Your task to perform on an android device: toggle priority inbox in the gmail app Image 0: 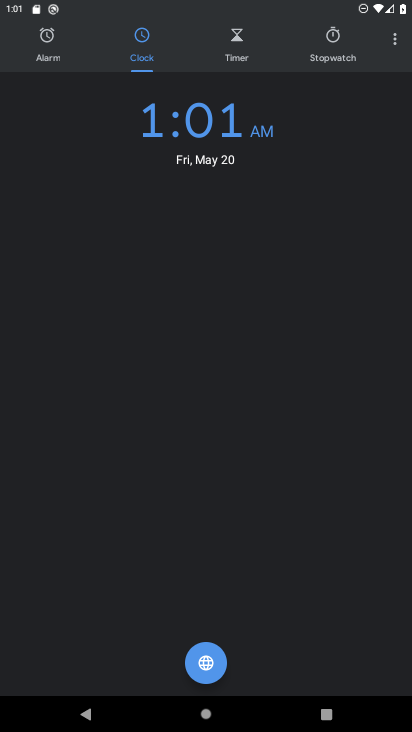
Step 0: press home button
Your task to perform on an android device: toggle priority inbox in the gmail app Image 1: 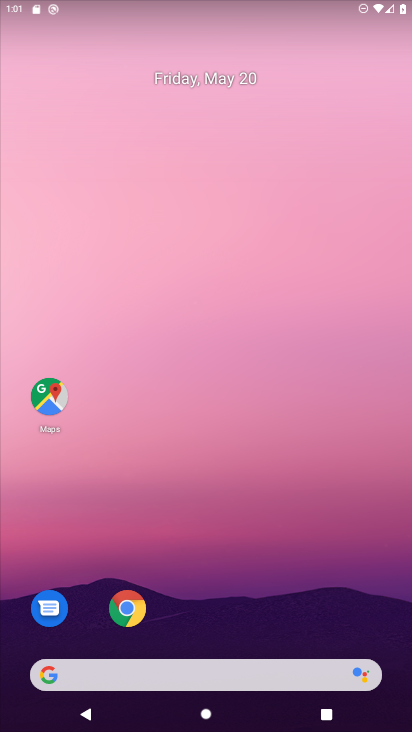
Step 1: drag from (235, 589) to (283, 18)
Your task to perform on an android device: toggle priority inbox in the gmail app Image 2: 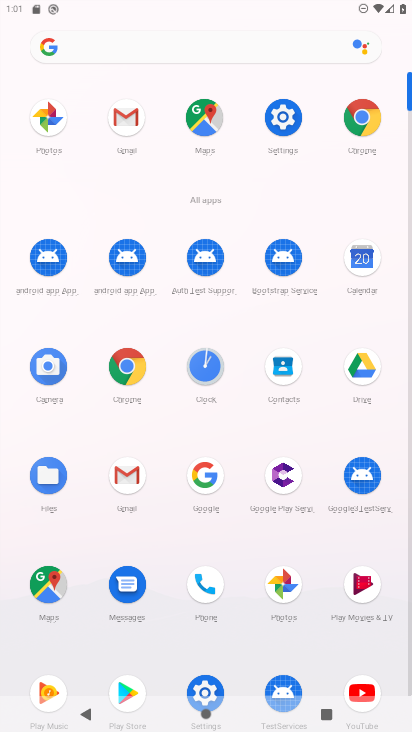
Step 2: click (147, 118)
Your task to perform on an android device: toggle priority inbox in the gmail app Image 3: 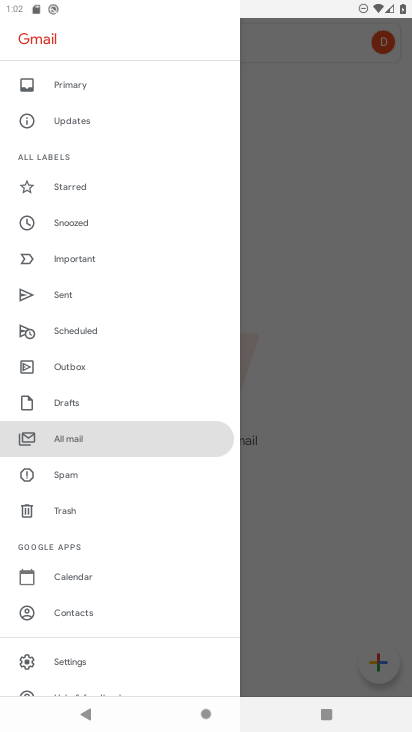
Step 3: click (89, 654)
Your task to perform on an android device: toggle priority inbox in the gmail app Image 4: 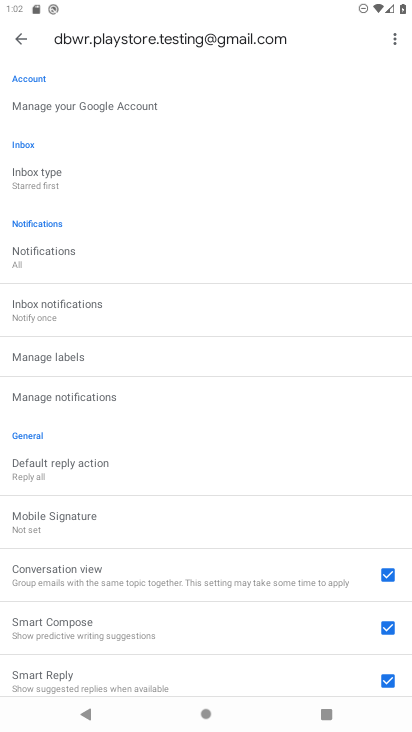
Step 4: click (32, 183)
Your task to perform on an android device: toggle priority inbox in the gmail app Image 5: 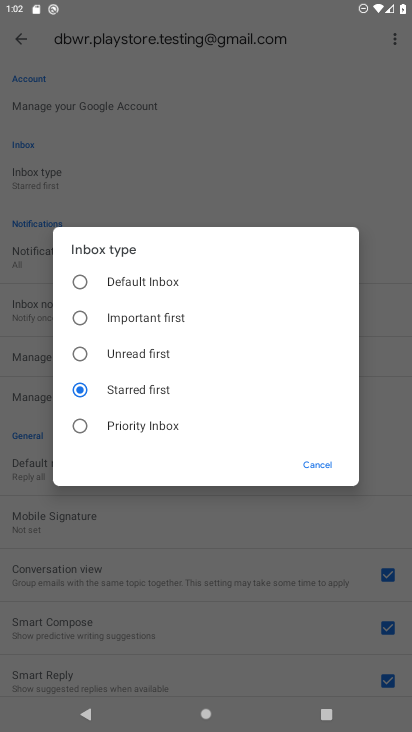
Step 5: click (116, 420)
Your task to perform on an android device: toggle priority inbox in the gmail app Image 6: 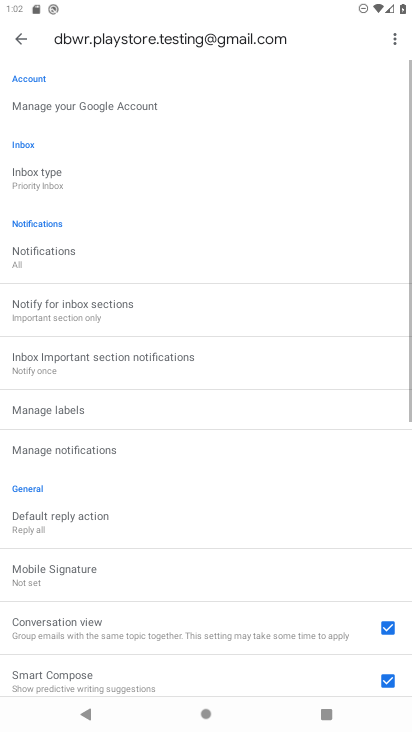
Step 6: task complete